Your task to perform on an android device: see creations saved in the google photos Image 0: 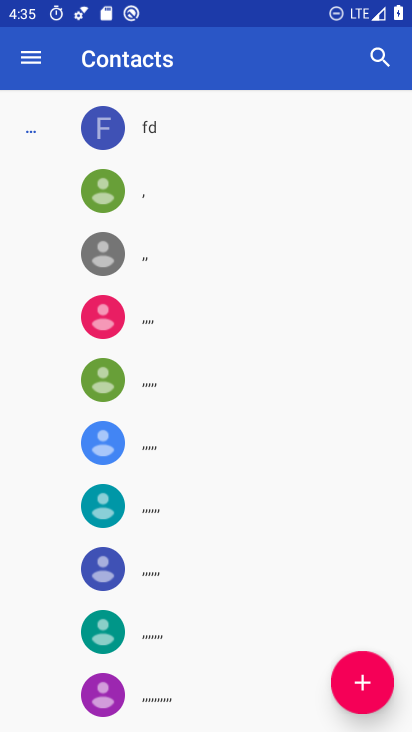
Step 0: press back button
Your task to perform on an android device: see creations saved in the google photos Image 1: 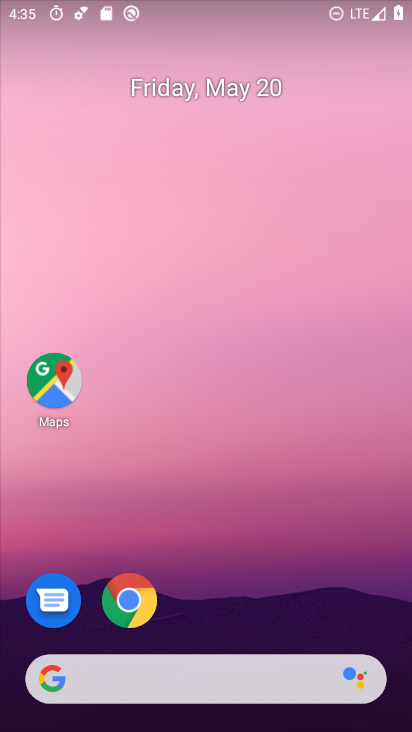
Step 1: drag from (220, 533) to (309, 45)
Your task to perform on an android device: see creations saved in the google photos Image 2: 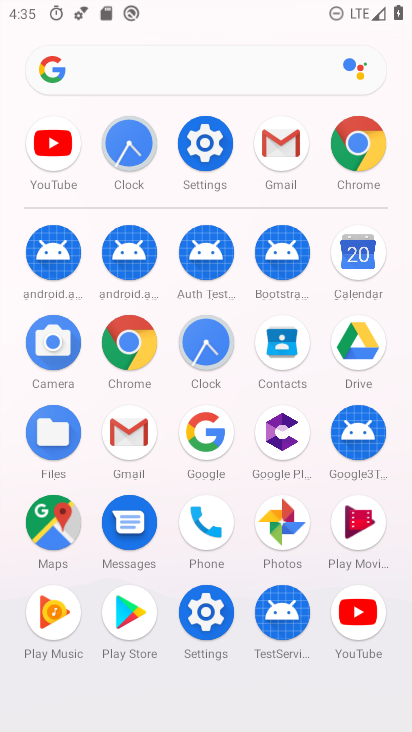
Step 2: click (284, 528)
Your task to perform on an android device: see creations saved in the google photos Image 3: 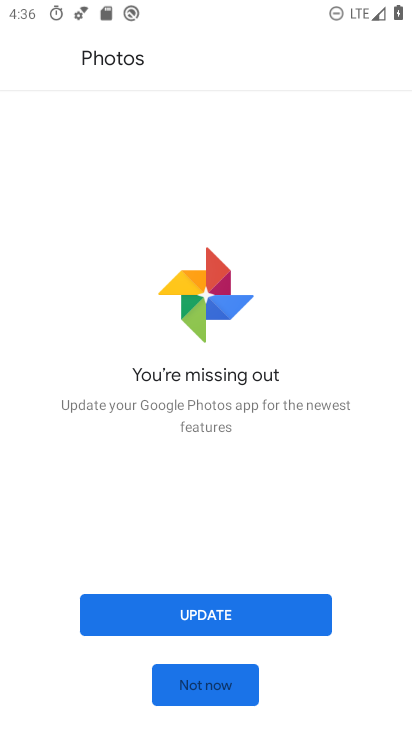
Step 3: click (204, 680)
Your task to perform on an android device: see creations saved in the google photos Image 4: 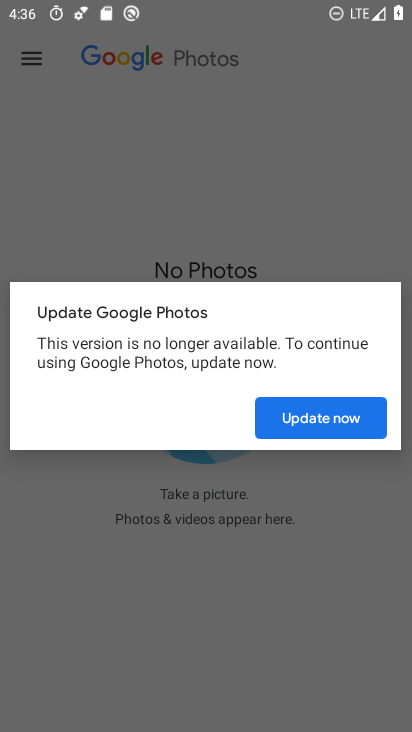
Step 4: click (337, 433)
Your task to perform on an android device: see creations saved in the google photos Image 5: 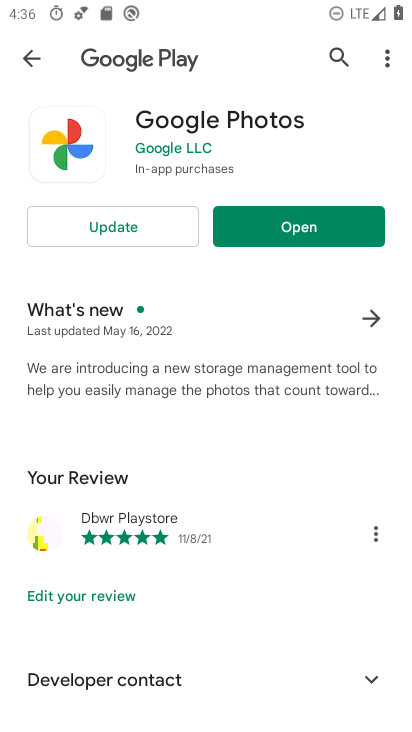
Step 5: click (273, 243)
Your task to perform on an android device: see creations saved in the google photos Image 6: 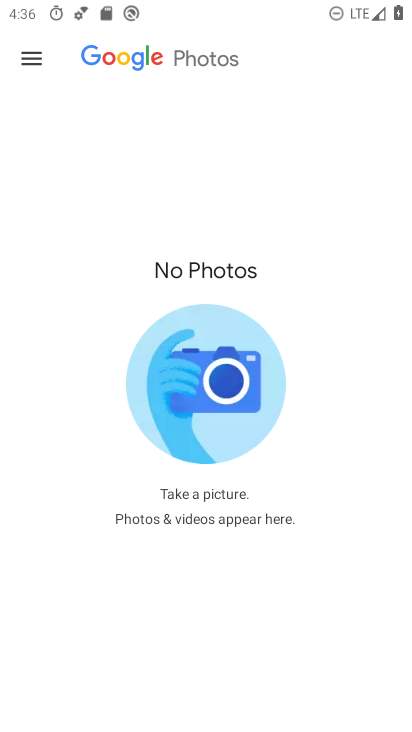
Step 6: click (26, 56)
Your task to perform on an android device: see creations saved in the google photos Image 7: 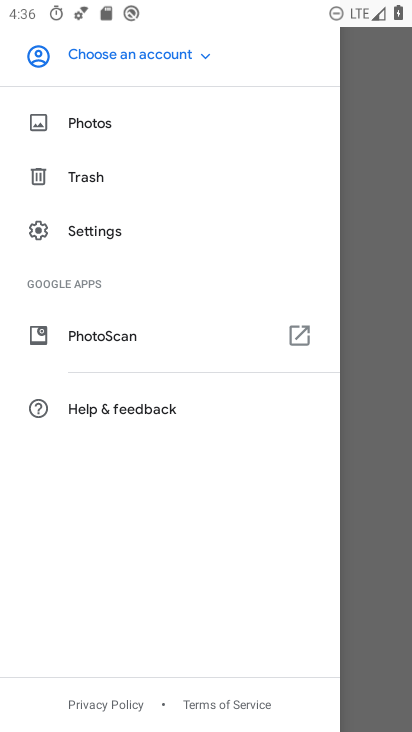
Step 7: task complete